Your task to perform on an android device: clear history in the chrome app Image 0: 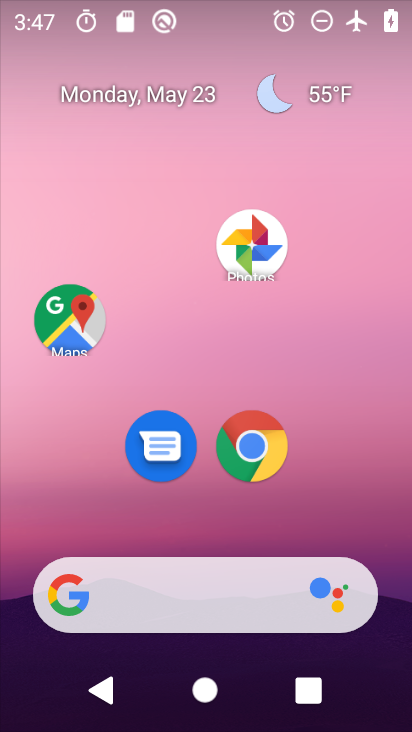
Step 0: click (257, 463)
Your task to perform on an android device: clear history in the chrome app Image 1: 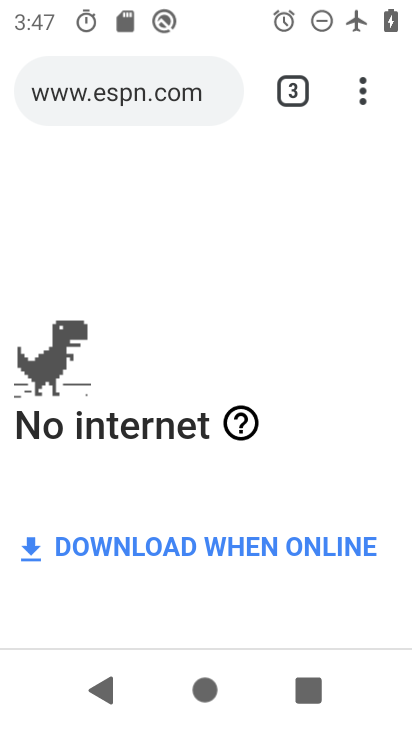
Step 1: click (355, 93)
Your task to perform on an android device: clear history in the chrome app Image 2: 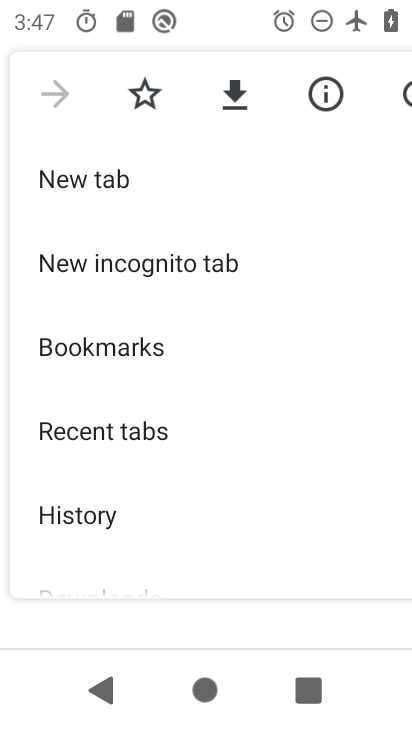
Step 2: click (124, 519)
Your task to perform on an android device: clear history in the chrome app Image 3: 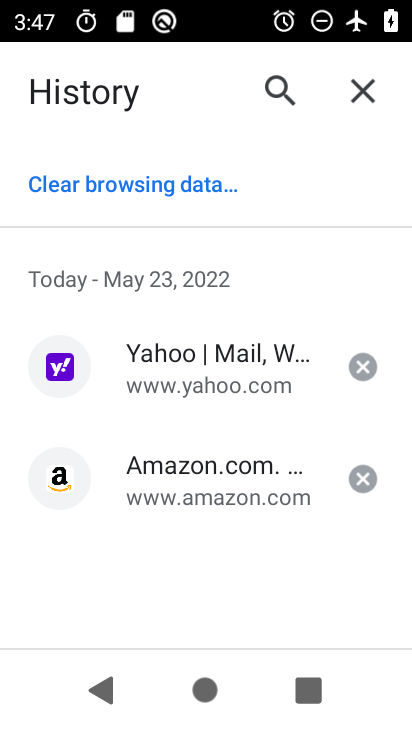
Step 3: click (122, 190)
Your task to perform on an android device: clear history in the chrome app Image 4: 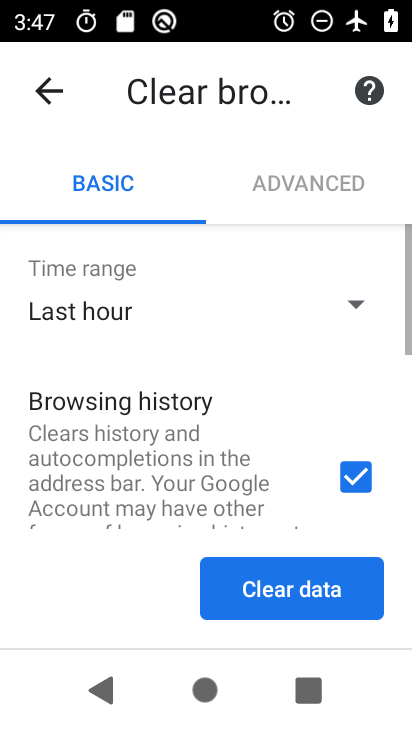
Step 4: click (264, 575)
Your task to perform on an android device: clear history in the chrome app Image 5: 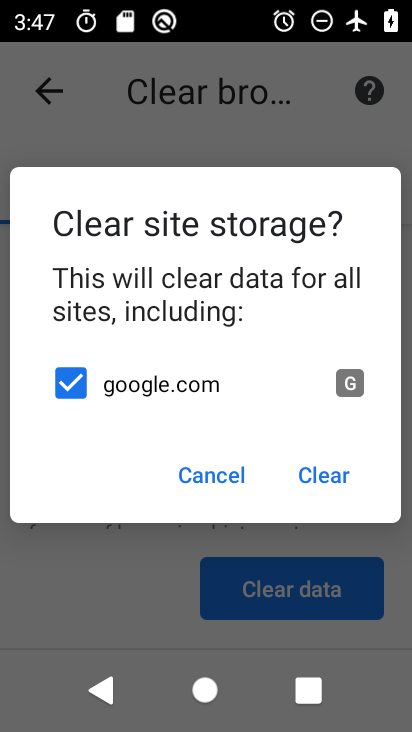
Step 5: click (321, 468)
Your task to perform on an android device: clear history in the chrome app Image 6: 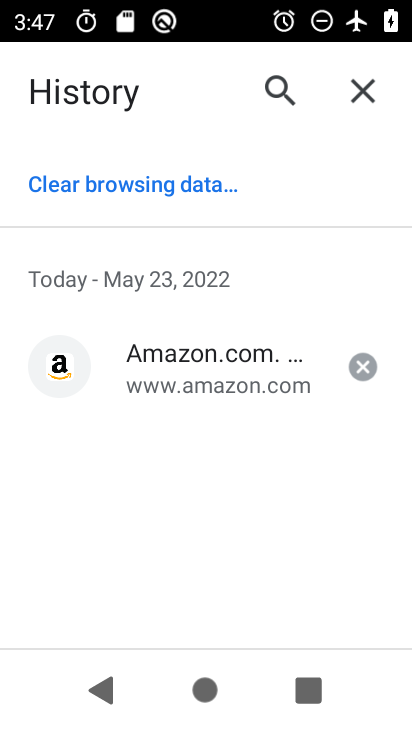
Step 6: task complete